Your task to perform on an android device: What's the news in the Philippines? Image 0: 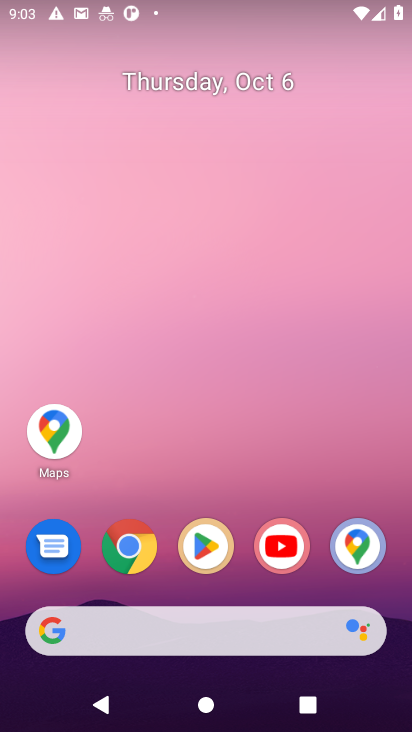
Step 0: click (135, 544)
Your task to perform on an android device: What's the news in the Philippines? Image 1: 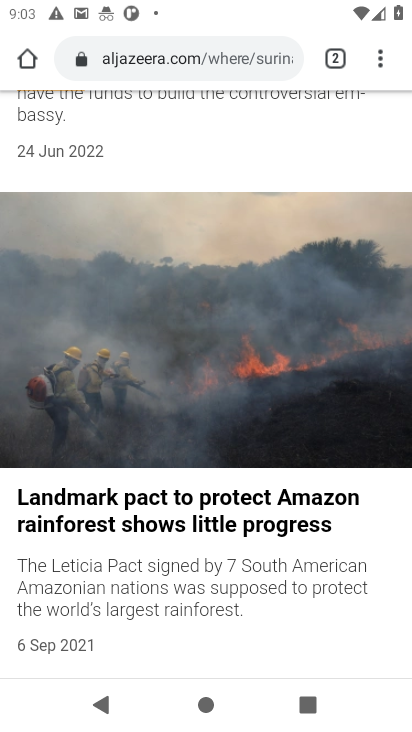
Step 1: click (151, 40)
Your task to perform on an android device: What's the news in the Philippines? Image 2: 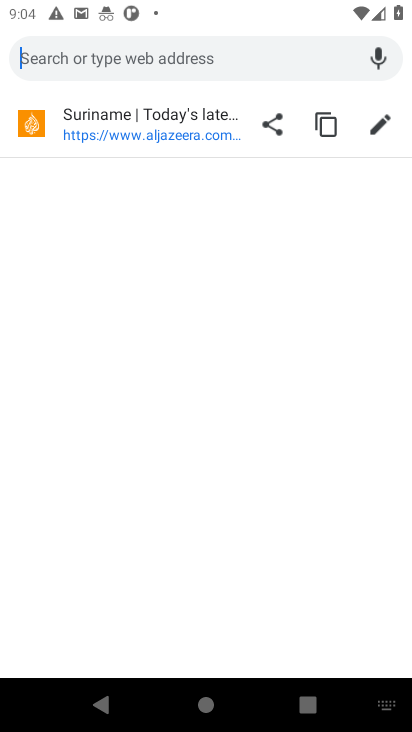
Step 2: type "What's the news in the Philippines?"
Your task to perform on an android device: What's the news in the Philippines? Image 3: 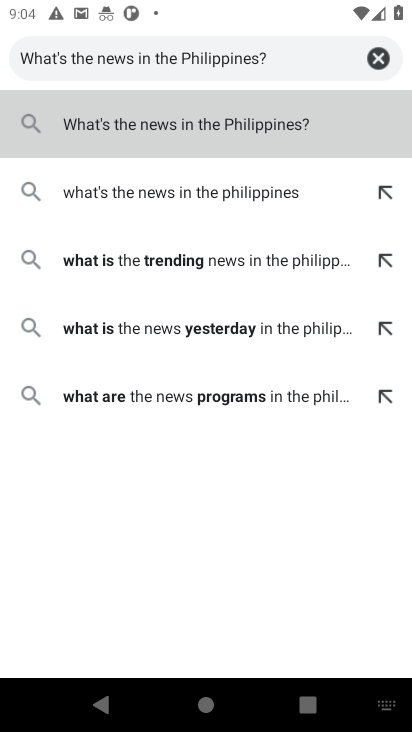
Step 3: click (129, 136)
Your task to perform on an android device: What's the news in the Philippines? Image 4: 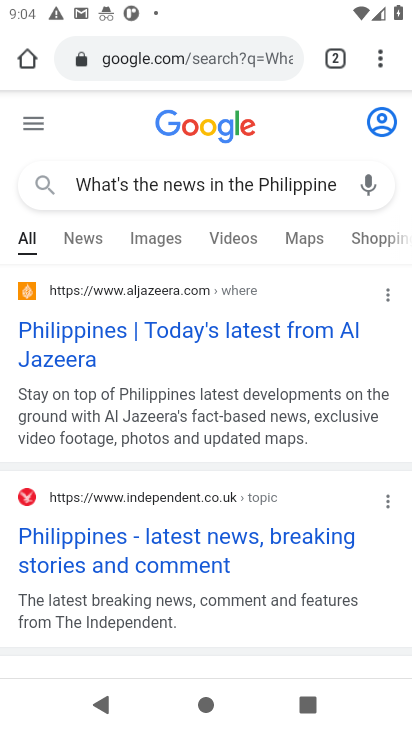
Step 4: click (60, 323)
Your task to perform on an android device: What's the news in the Philippines? Image 5: 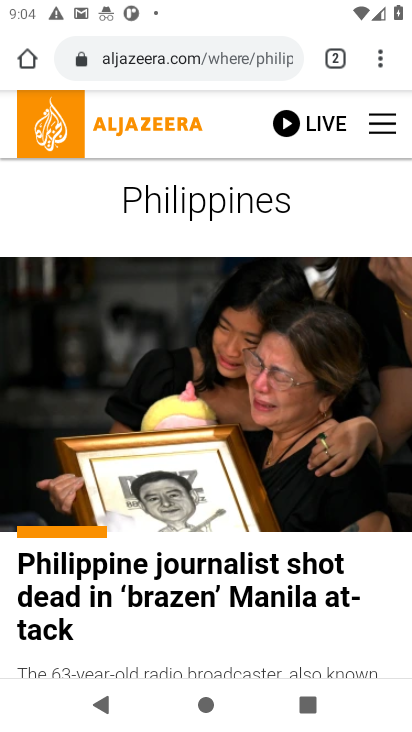
Step 5: task complete